Your task to perform on an android device: toggle show notifications on the lock screen Image 0: 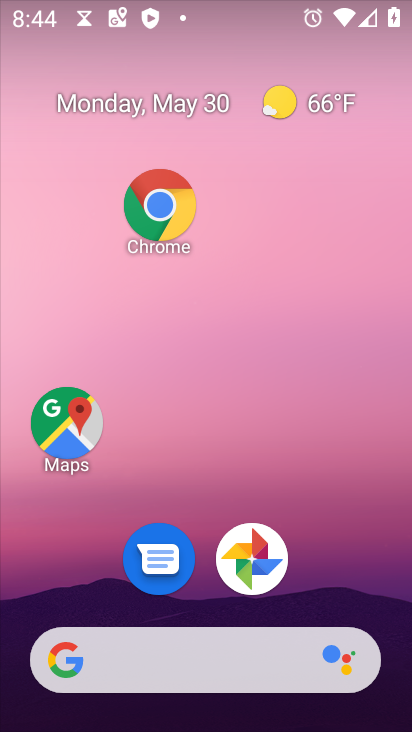
Step 0: drag from (274, 677) to (230, 100)
Your task to perform on an android device: toggle show notifications on the lock screen Image 1: 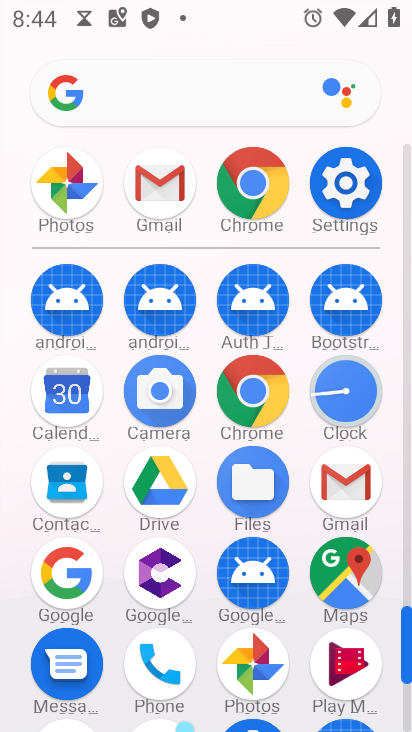
Step 1: click (345, 194)
Your task to perform on an android device: toggle show notifications on the lock screen Image 2: 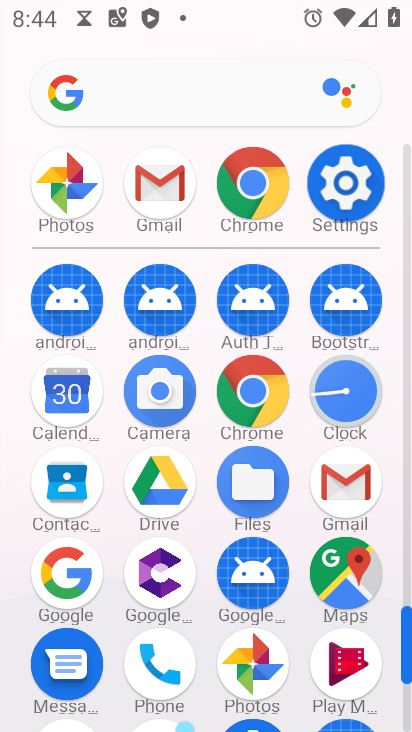
Step 2: click (347, 194)
Your task to perform on an android device: toggle show notifications on the lock screen Image 3: 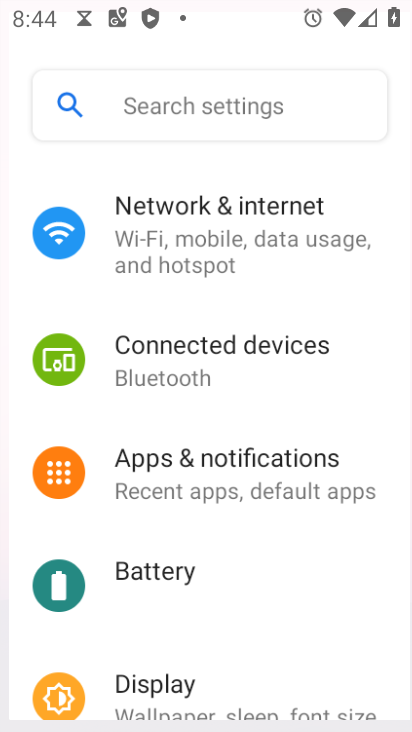
Step 3: click (351, 189)
Your task to perform on an android device: toggle show notifications on the lock screen Image 4: 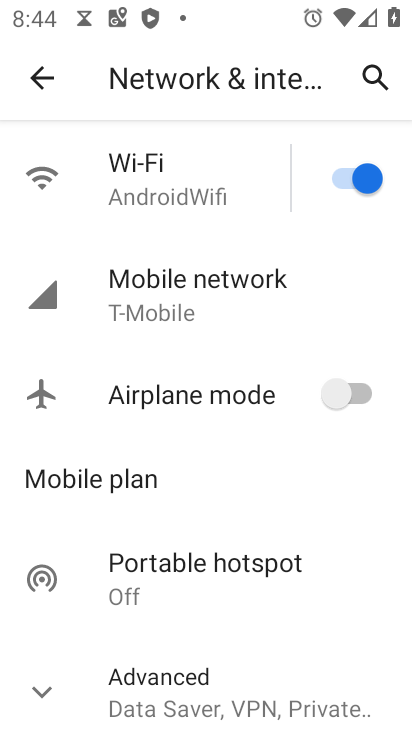
Step 4: click (50, 85)
Your task to perform on an android device: toggle show notifications on the lock screen Image 5: 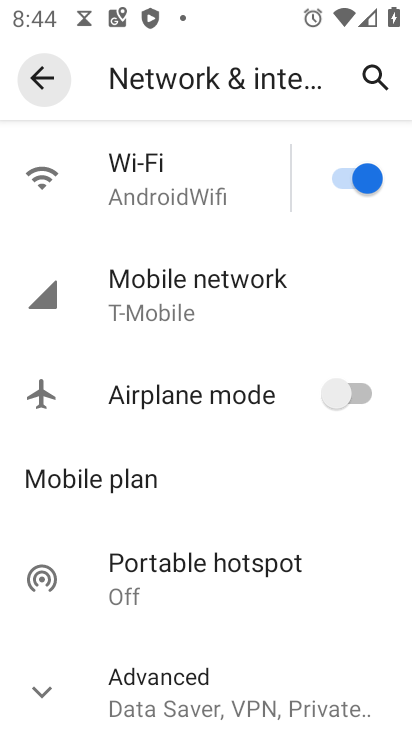
Step 5: click (49, 83)
Your task to perform on an android device: toggle show notifications on the lock screen Image 6: 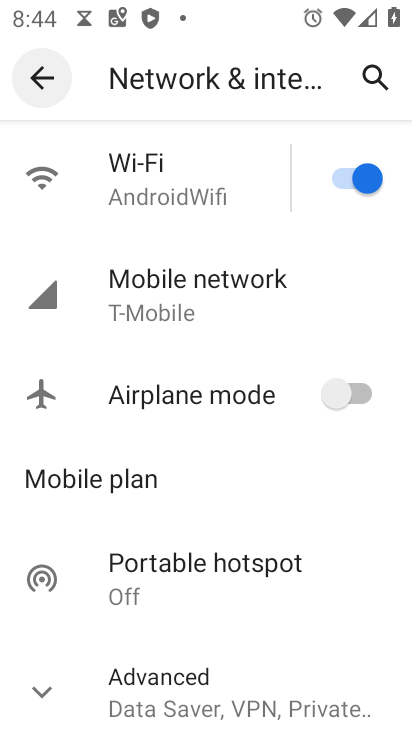
Step 6: click (49, 83)
Your task to perform on an android device: toggle show notifications on the lock screen Image 7: 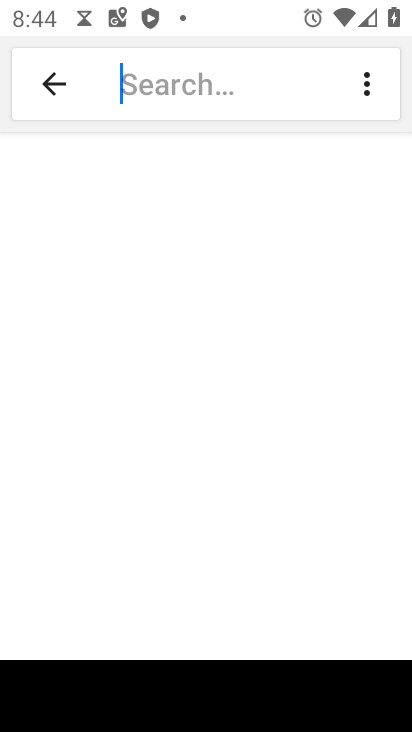
Step 7: click (51, 83)
Your task to perform on an android device: toggle show notifications on the lock screen Image 8: 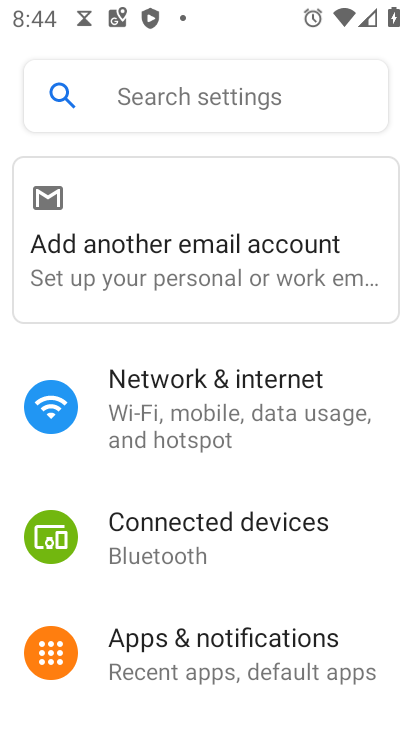
Step 8: click (185, 647)
Your task to perform on an android device: toggle show notifications on the lock screen Image 9: 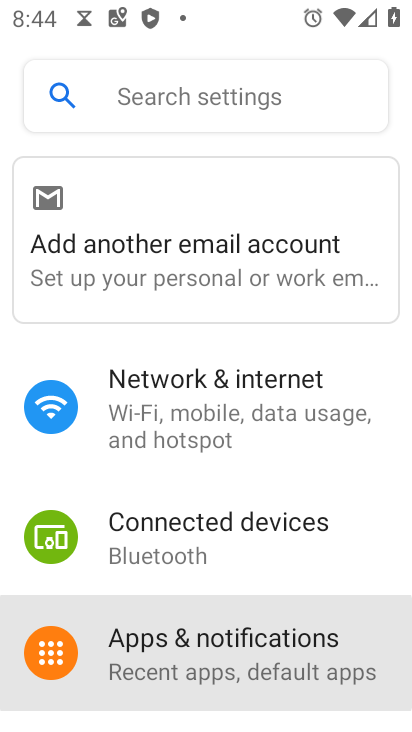
Step 9: click (183, 648)
Your task to perform on an android device: toggle show notifications on the lock screen Image 10: 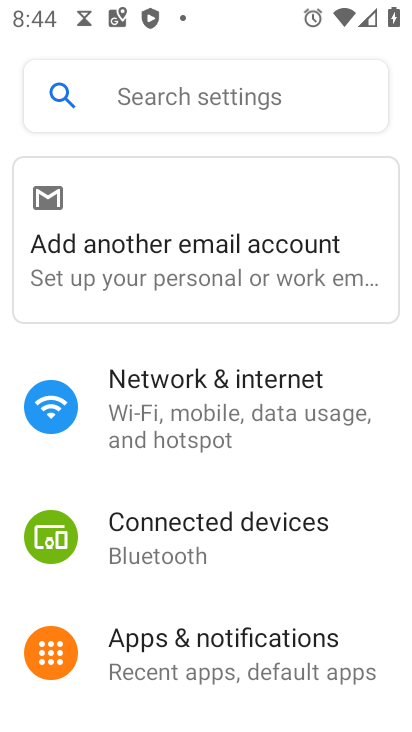
Step 10: click (184, 657)
Your task to perform on an android device: toggle show notifications on the lock screen Image 11: 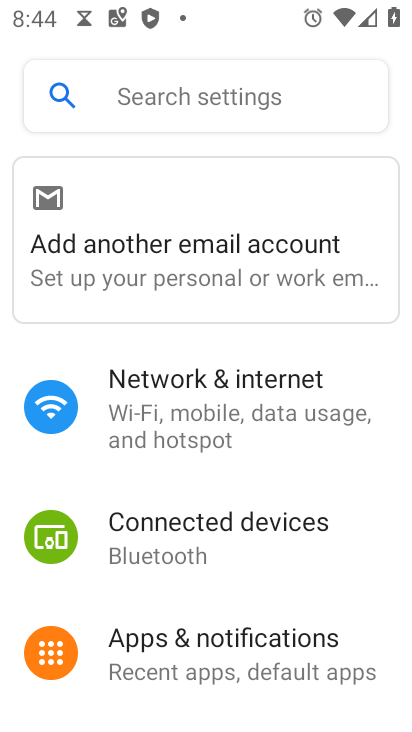
Step 11: click (186, 657)
Your task to perform on an android device: toggle show notifications on the lock screen Image 12: 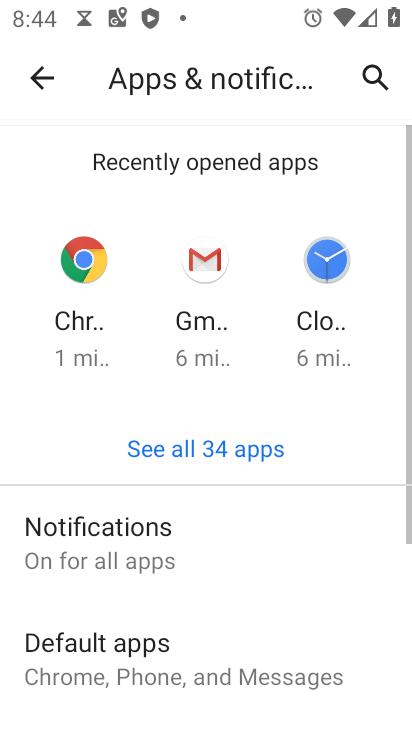
Step 12: click (91, 539)
Your task to perform on an android device: toggle show notifications on the lock screen Image 13: 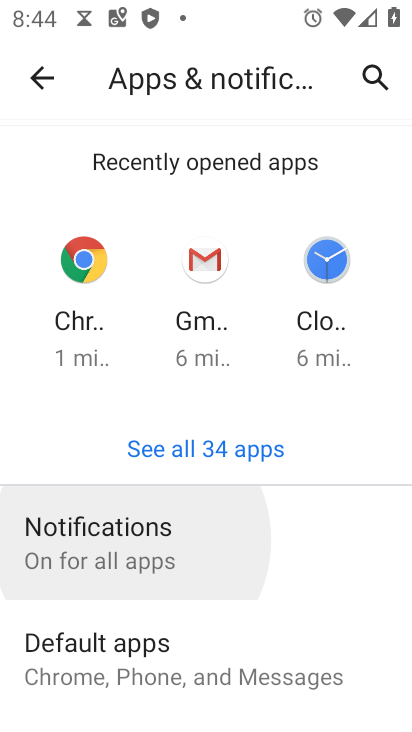
Step 13: click (92, 539)
Your task to perform on an android device: toggle show notifications on the lock screen Image 14: 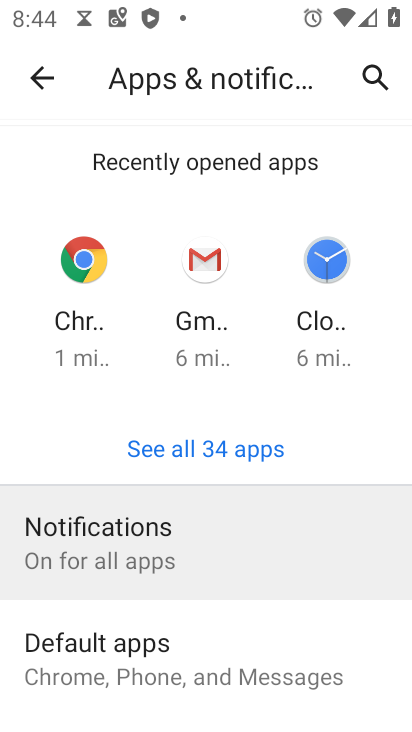
Step 14: click (95, 538)
Your task to perform on an android device: toggle show notifications on the lock screen Image 15: 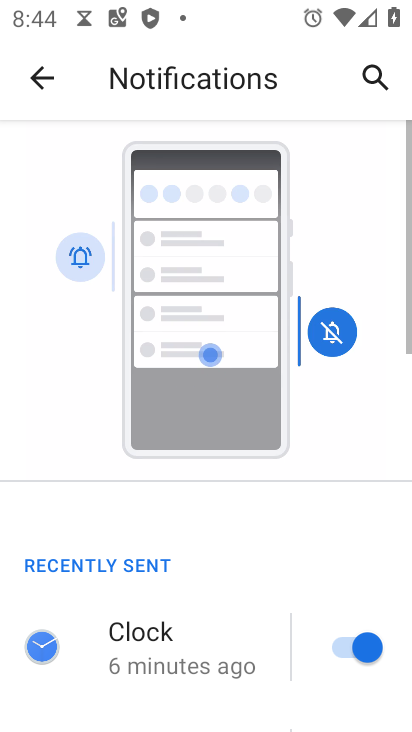
Step 15: drag from (226, 622) to (246, 339)
Your task to perform on an android device: toggle show notifications on the lock screen Image 16: 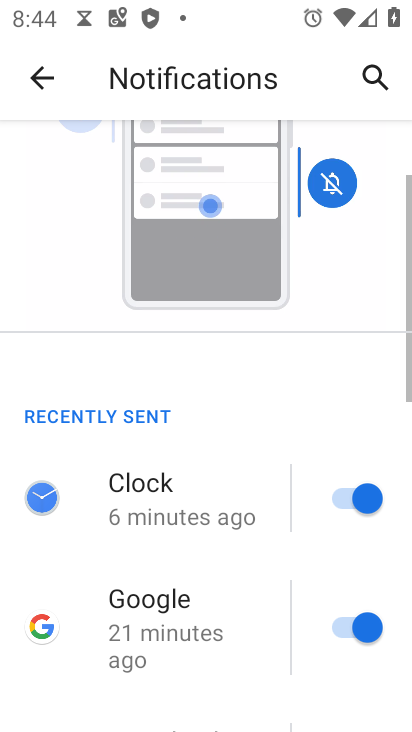
Step 16: drag from (210, 599) to (204, 254)
Your task to perform on an android device: toggle show notifications on the lock screen Image 17: 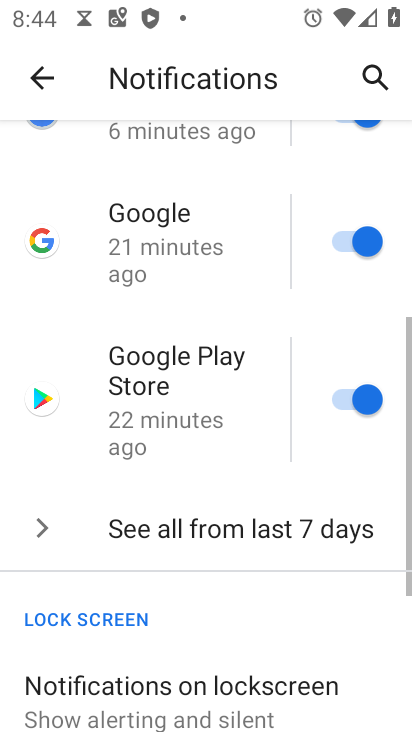
Step 17: drag from (243, 517) to (234, 309)
Your task to perform on an android device: toggle show notifications on the lock screen Image 18: 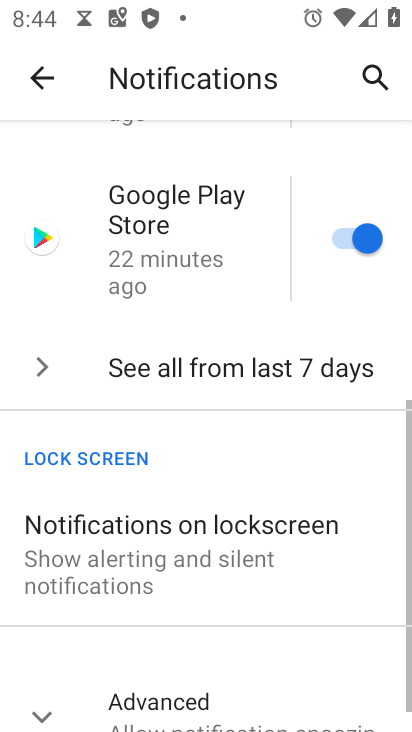
Step 18: drag from (212, 522) to (217, 168)
Your task to perform on an android device: toggle show notifications on the lock screen Image 19: 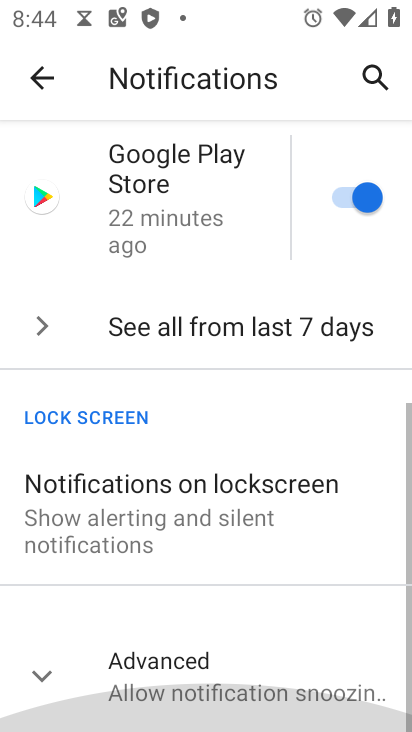
Step 19: drag from (304, 515) to (302, 211)
Your task to perform on an android device: toggle show notifications on the lock screen Image 20: 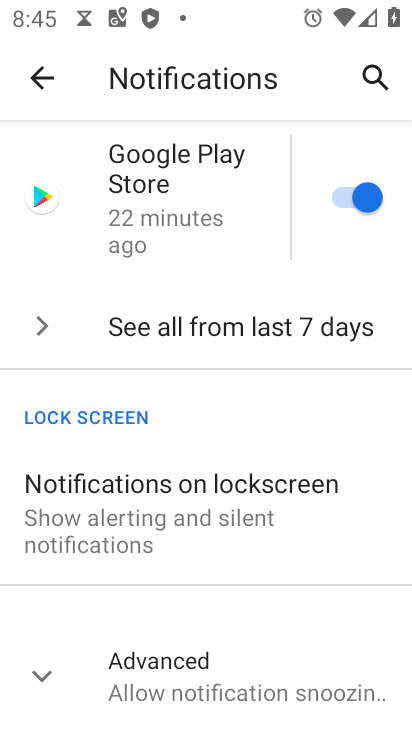
Step 20: click (191, 495)
Your task to perform on an android device: toggle show notifications on the lock screen Image 21: 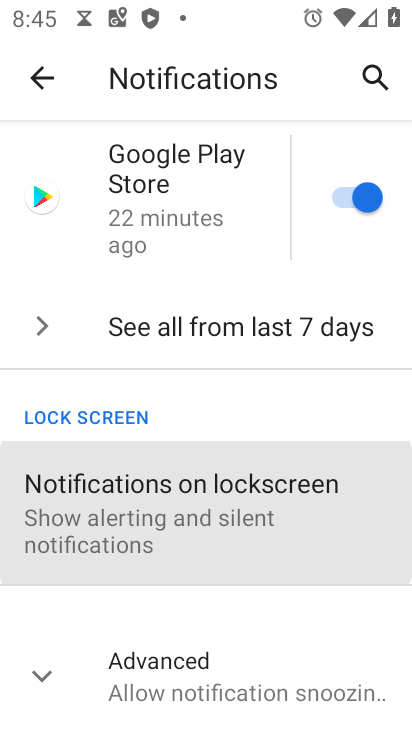
Step 21: click (190, 496)
Your task to perform on an android device: toggle show notifications on the lock screen Image 22: 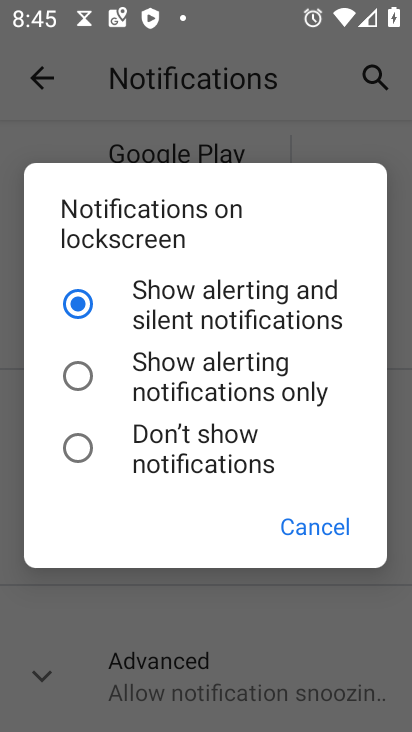
Step 22: click (190, 500)
Your task to perform on an android device: toggle show notifications on the lock screen Image 23: 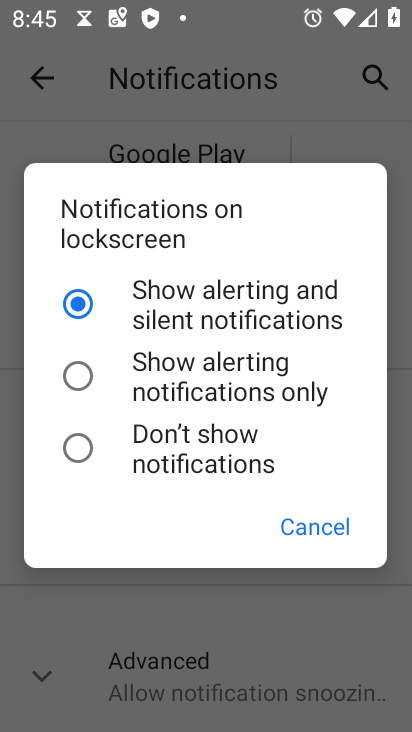
Step 23: click (328, 527)
Your task to perform on an android device: toggle show notifications on the lock screen Image 24: 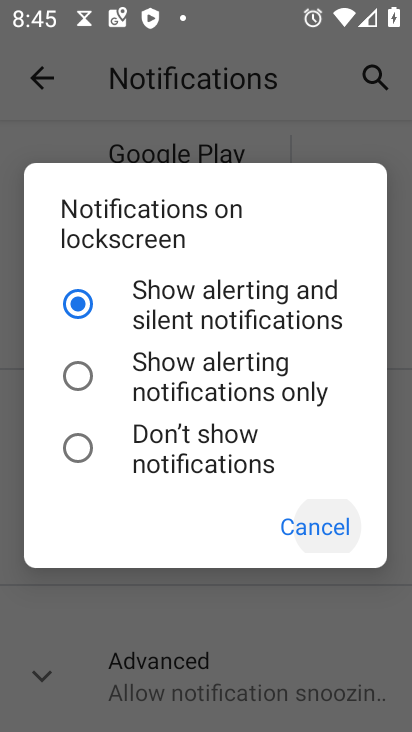
Step 24: click (326, 528)
Your task to perform on an android device: toggle show notifications on the lock screen Image 25: 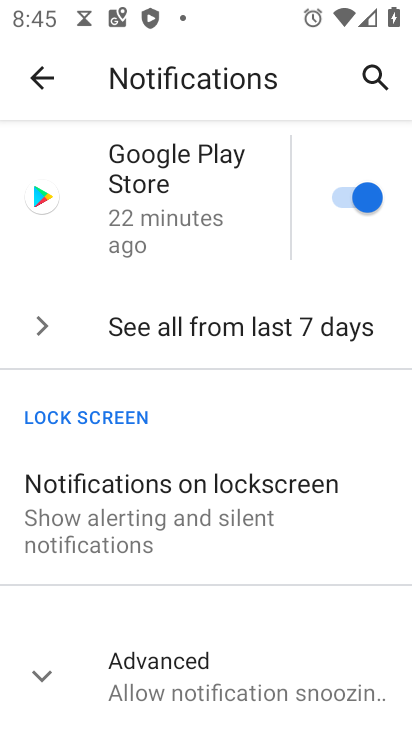
Step 25: click (326, 528)
Your task to perform on an android device: toggle show notifications on the lock screen Image 26: 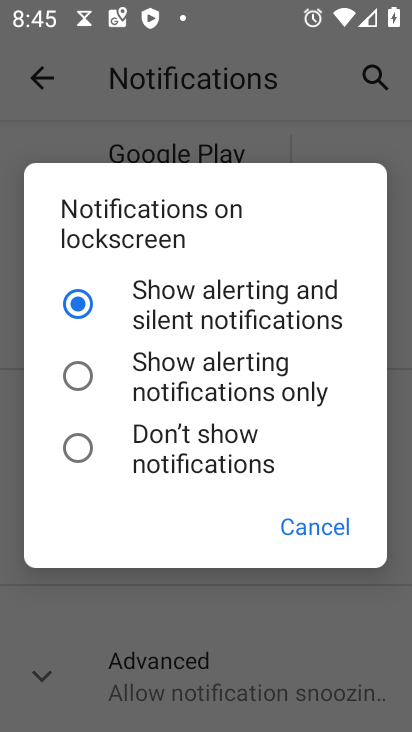
Step 26: click (319, 517)
Your task to perform on an android device: toggle show notifications on the lock screen Image 27: 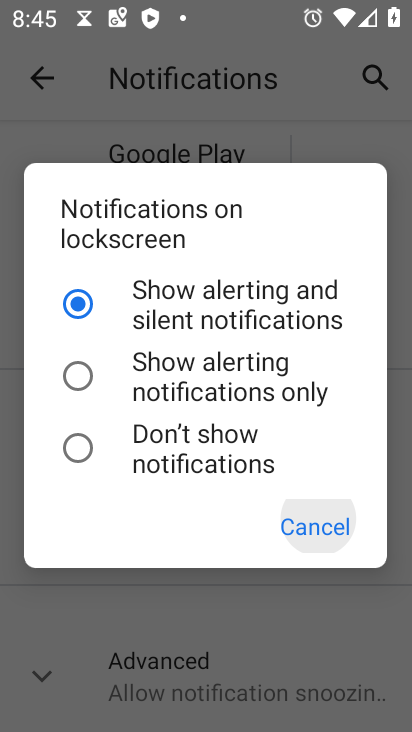
Step 27: click (318, 521)
Your task to perform on an android device: toggle show notifications on the lock screen Image 28: 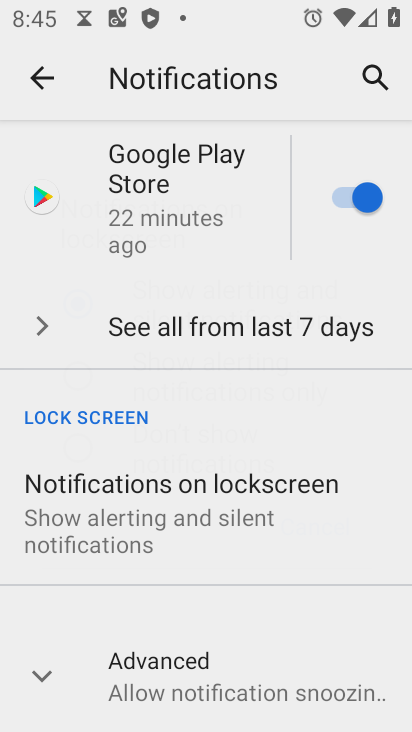
Step 28: click (318, 521)
Your task to perform on an android device: toggle show notifications on the lock screen Image 29: 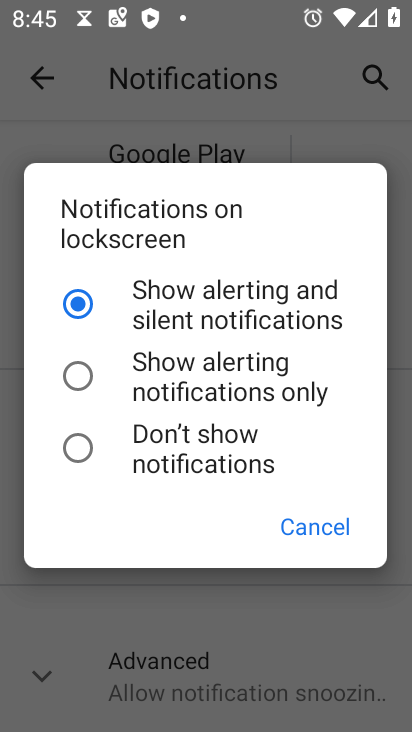
Step 29: click (310, 533)
Your task to perform on an android device: toggle show notifications on the lock screen Image 30: 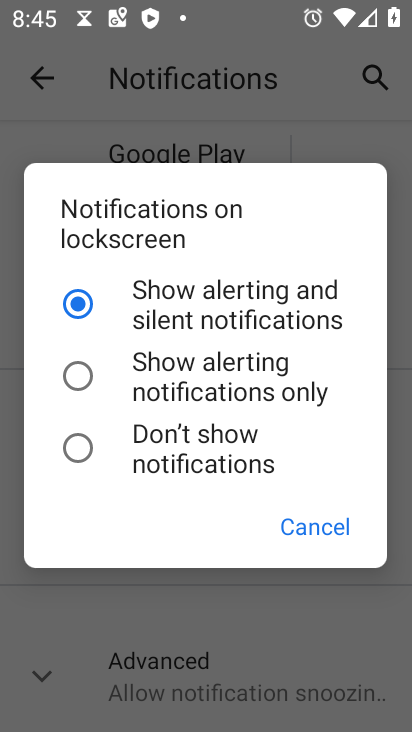
Step 30: task complete